Your task to perform on an android device: Open the Play Movies app and select the watchlist tab. Image 0: 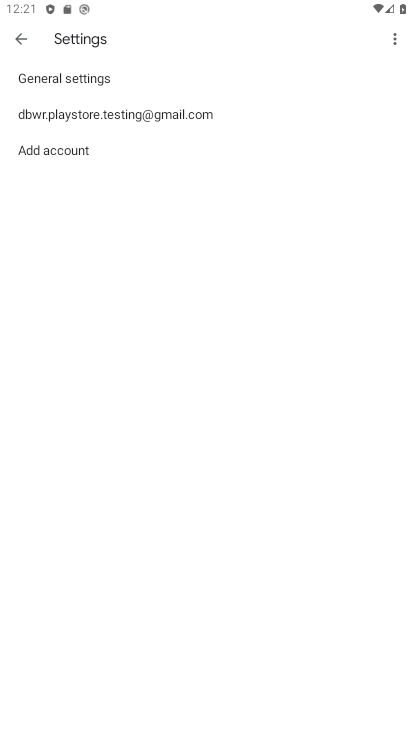
Step 0: press home button
Your task to perform on an android device: Open the Play Movies app and select the watchlist tab. Image 1: 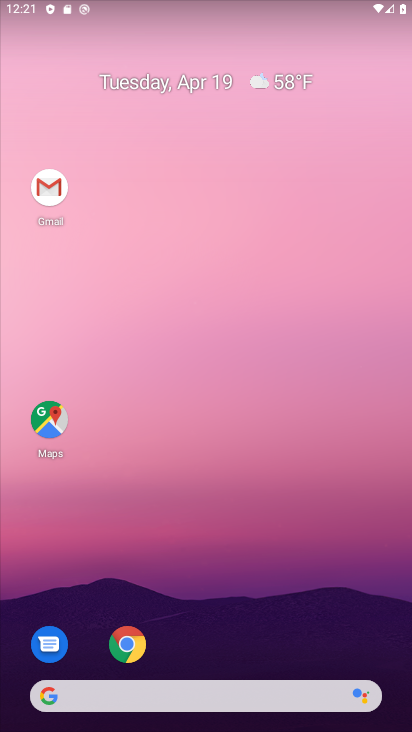
Step 1: drag from (217, 641) to (195, 170)
Your task to perform on an android device: Open the Play Movies app and select the watchlist tab. Image 2: 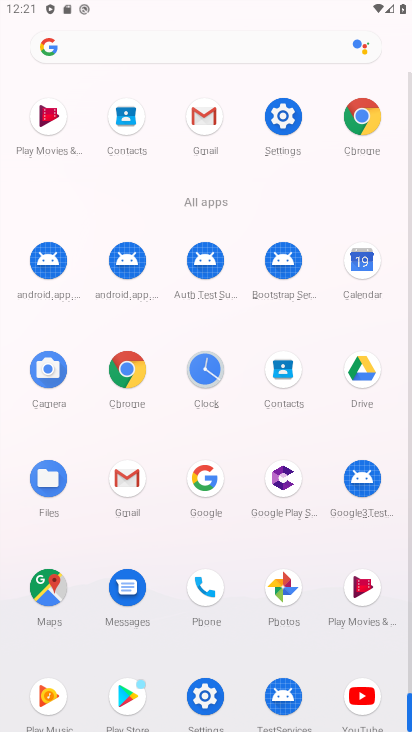
Step 2: click (358, 592)
Your task to perform on an android device: Open the Play Movies app and select the watchlist tab. Image 3: 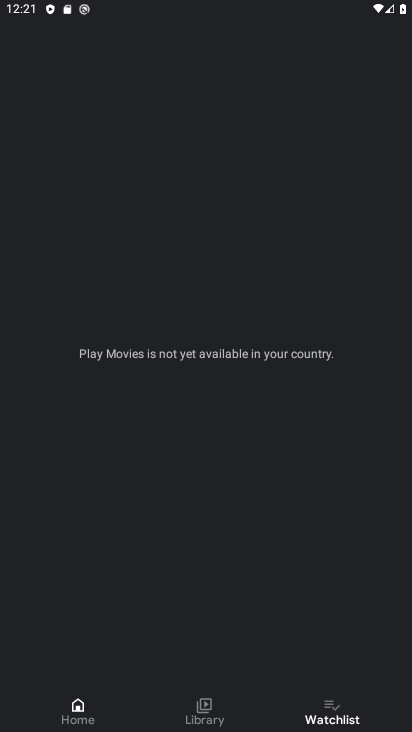
Step 3: click (324, 706)
Your task to perform on an android device: Open the Play Movies app and select the watchlist tab. Image 4: 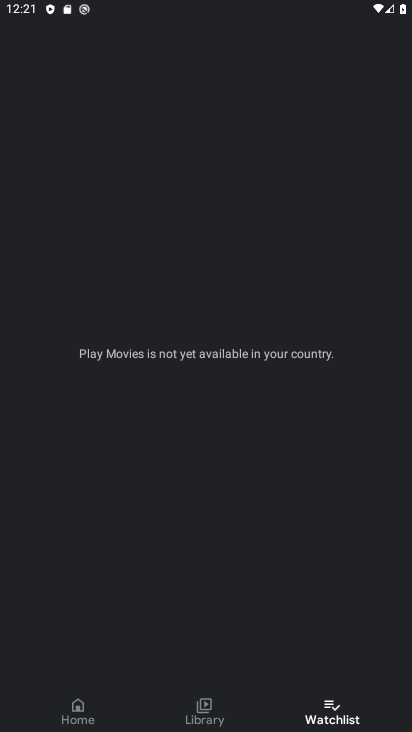
Step 4: task complete